Your task to perform on an android device: Go to sound settings Image 0: 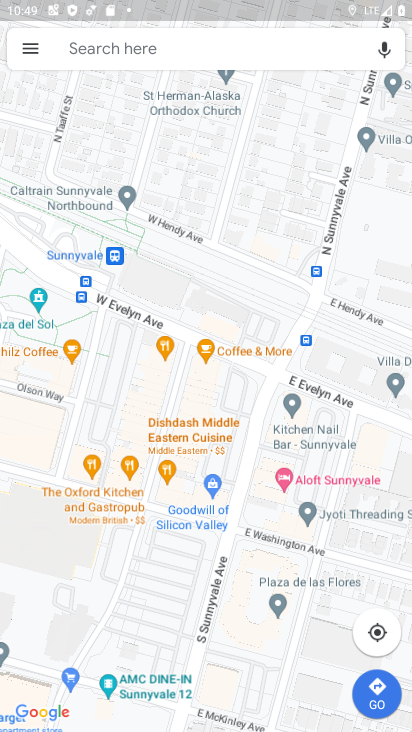
Step 0: press home button
Your task to perform on an android device: Go to sound settings Image 1: 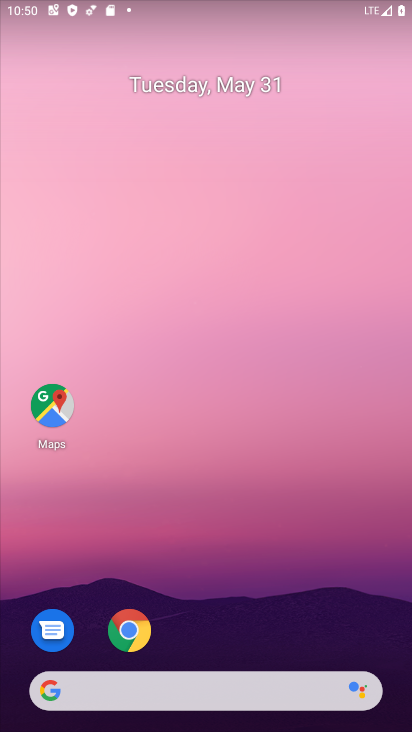
Step 1: drag from (268, 554) to (274, 48)
Your task to perform on an android device: Go to sound settings Image 2: 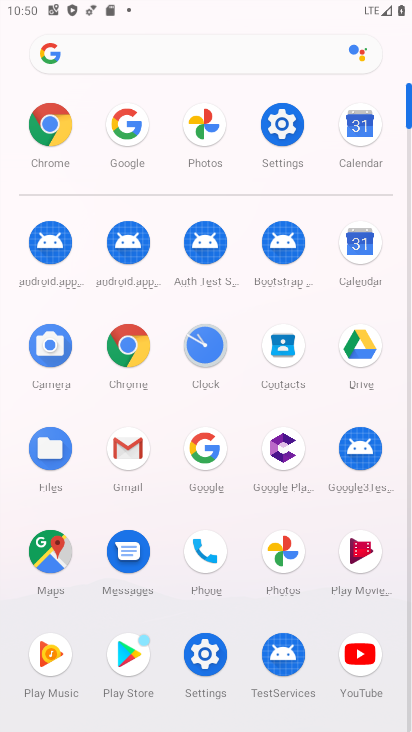
Step 2: click (276, 116)
Your task to perform on an android device: Go to sound settings Image 3: 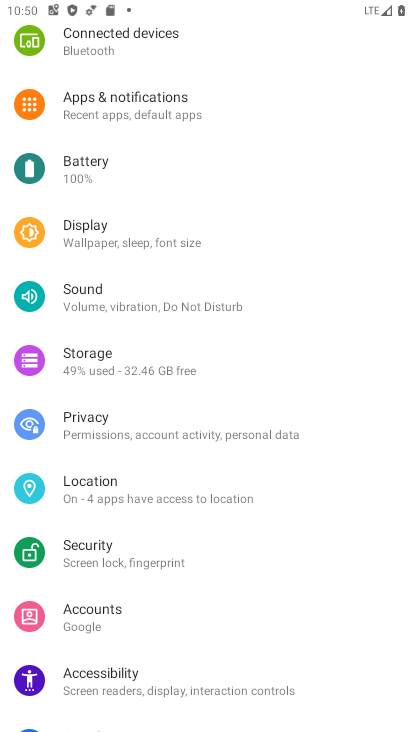
Step 3: click (178, 305)
Your task to perform on an android device: Go to sound settings Image 4: 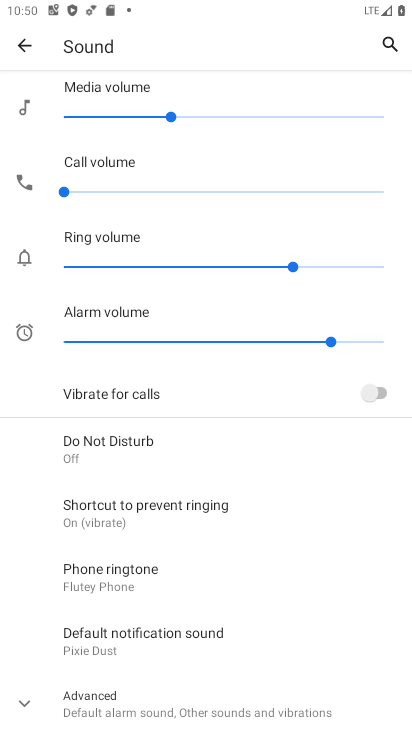
Step 4: task complete